Your task to perform on an android device: turn on sleep mode Image 0: 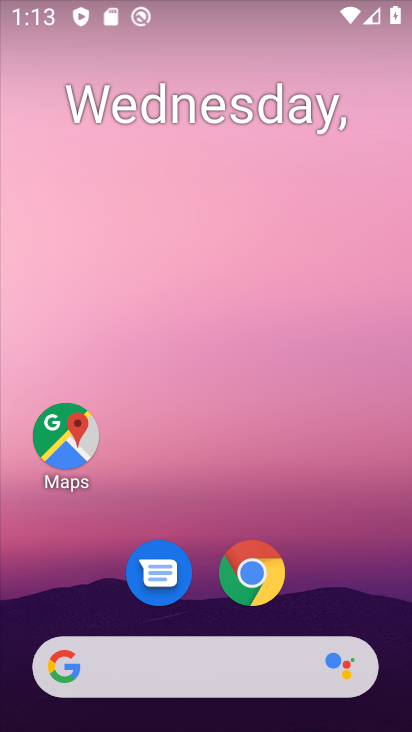
Step 0: drag from (108, 633) to (196, 244)
Your task to perform on an android device: turn on sleep mode Image 1: 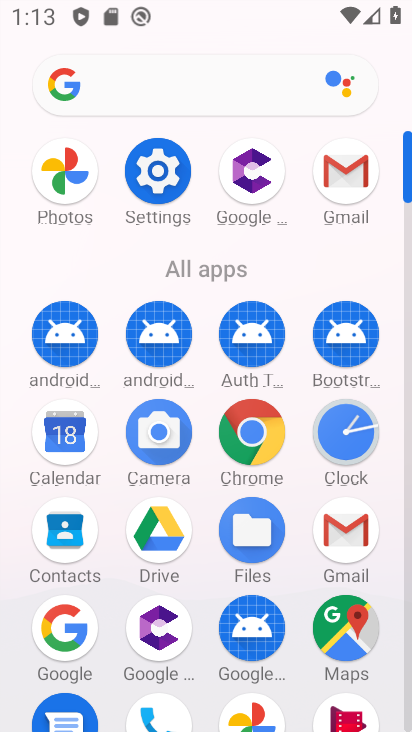
Step 1: drag from (149, 660) to (237, 322)
Your task to perform on an android device: turn on sleep mode Image 2: 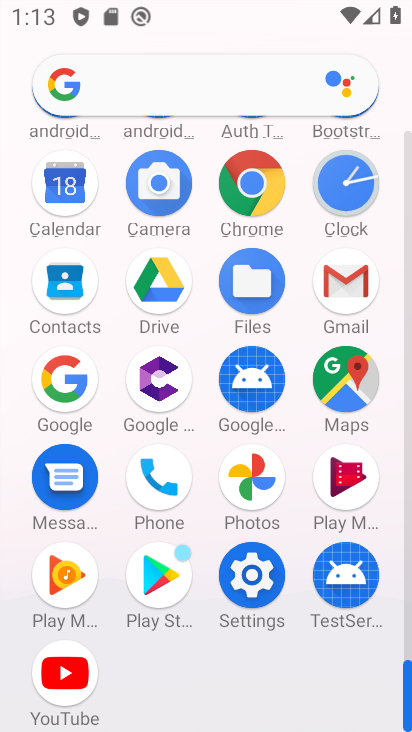
Step 2: click (263, 601)
Your task to perform on an android device: turn on sleep mode Image 3: 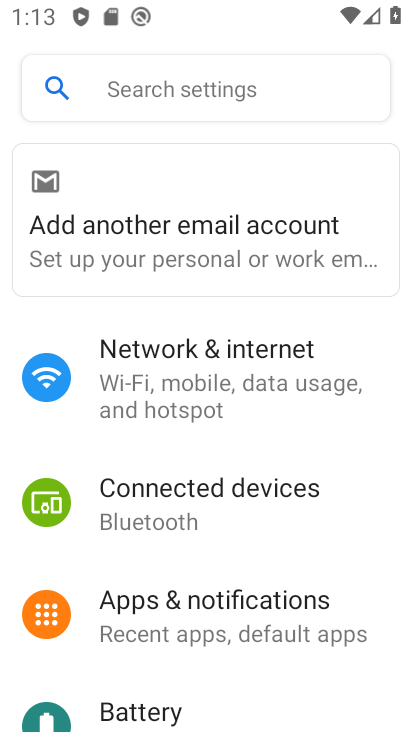
Step 3: drag from (158, 586) to (225, 377)
Your task to perform on an android device: turn on sleep mode Image 4: 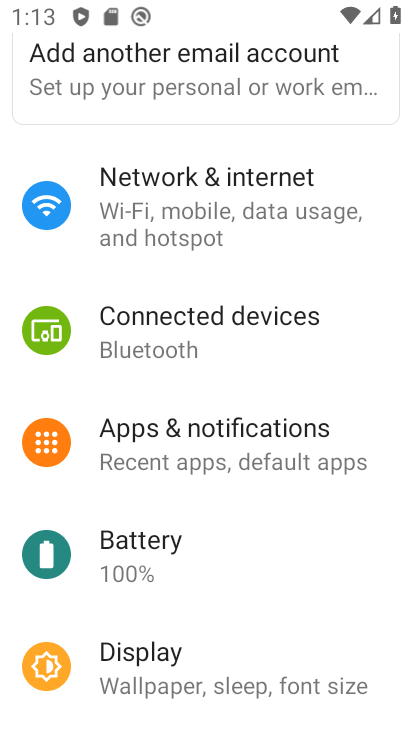
Step 4: click (181, 647)
Your task to perform on an android device: turn on sleep mode Image 5: 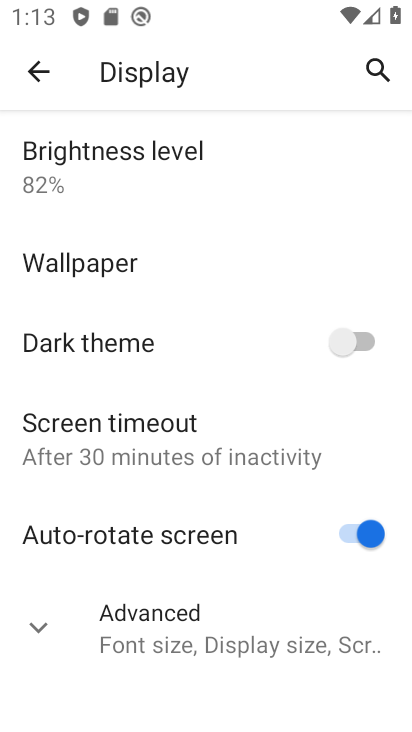
Step 5: click (205, 628)
Your task to perform on an android device: turn on sleep mode Image 6: 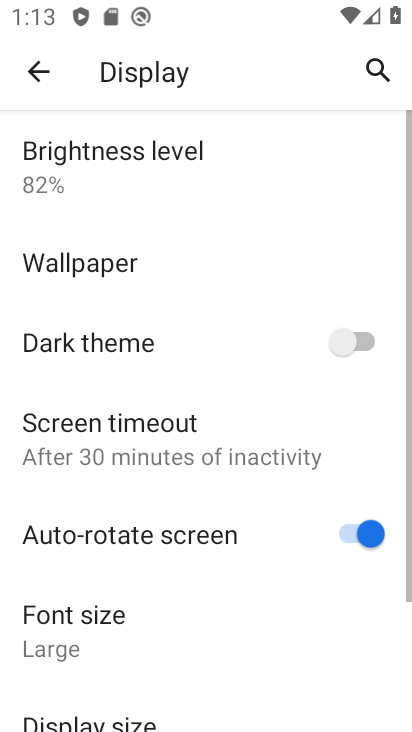
Step 6: task complete